Your task to perform on an android device: turn off translation in the chrome app Image 0: 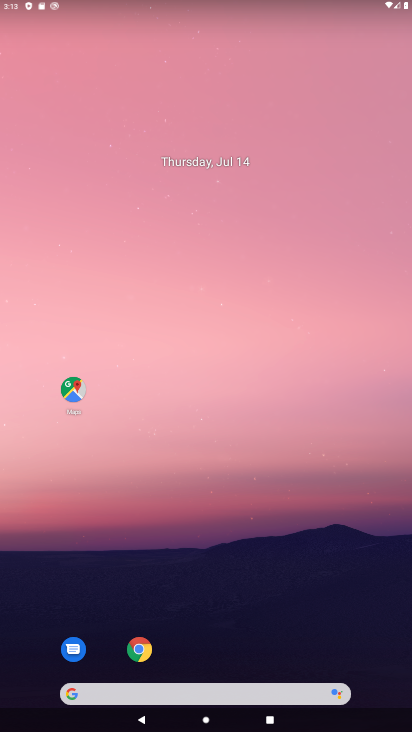
Step 0: click (153, 660)
Your task to perform on an android device: turn off translation in the chrome app Image 1: 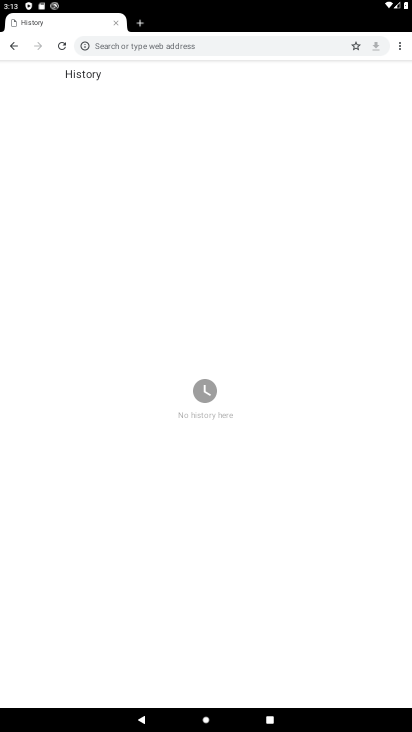
Step 1: click (405, 43)
Your task to perform on an android device: turn off translation in the chrome app Image 2: 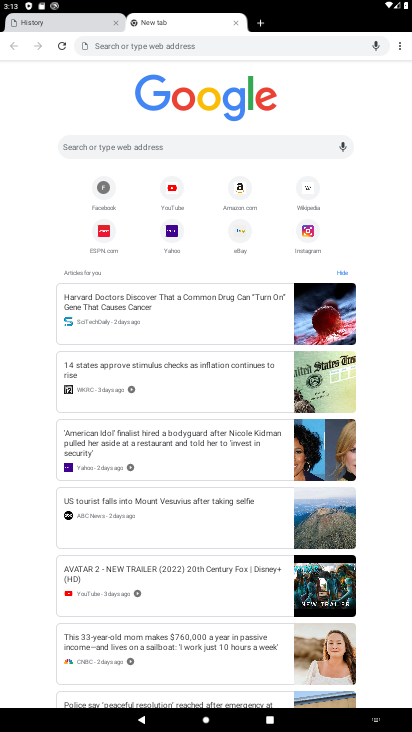
Step 2: drag from (396, 45) to (310, 208)
Your task to perform on an android device: turn off translation in the chrome app Image 3: 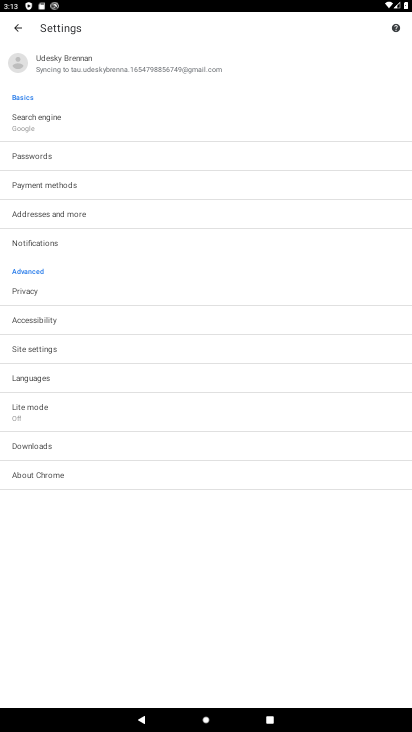
Step 3: click (32, 371)
Your task to perform on an android device: turn off translation in the chrome app Image 4: 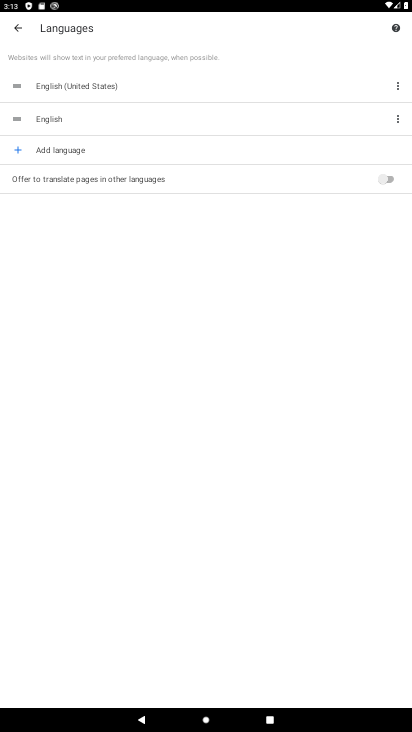
Step 4: task complete